Your task to perform on an android device: What's the weather? Image 0: 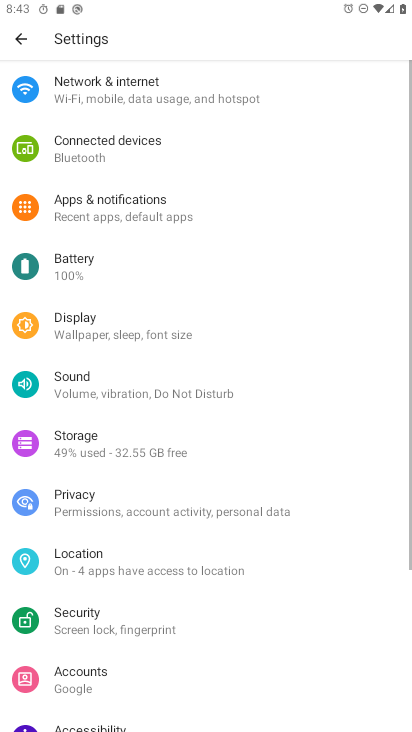
Step 0: press home button
Your task to perform on an android device: What's the weather? Image 1: 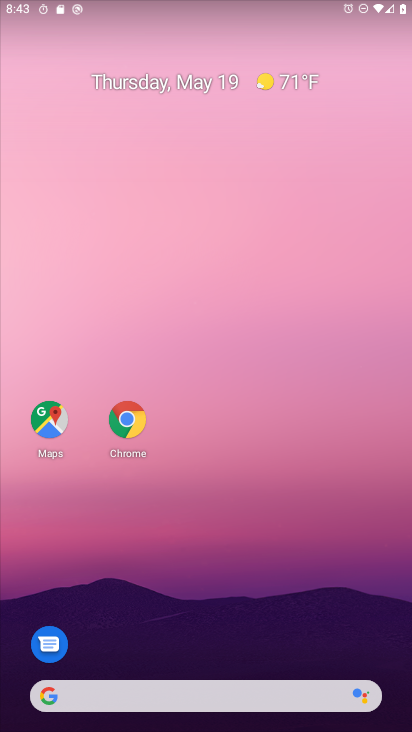
Step 1: drag from (172, 681) to (208, 307)
Your task to perform on an android device: What's the weather? Image 2: 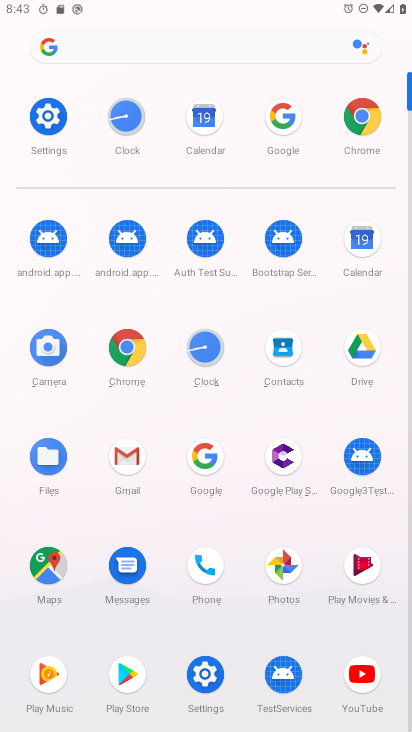
Step 2: click (202, 455)
Your task to perform on an android device: What's the weather? Image 3: 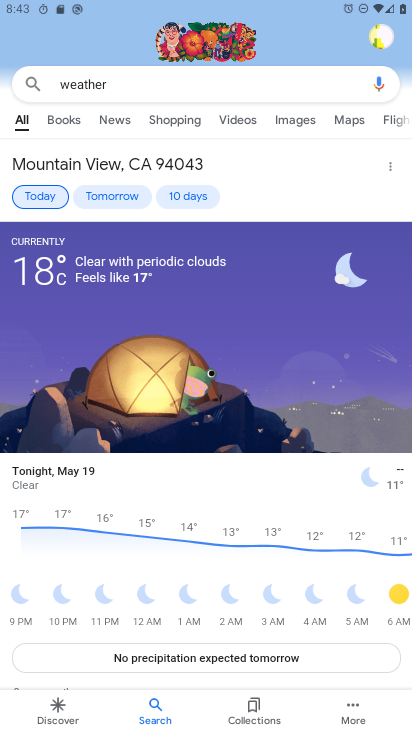
Step 3: drag from (161, 588) to (173, 288)
Your task to perform on an android device: What's the weather? Image 4: 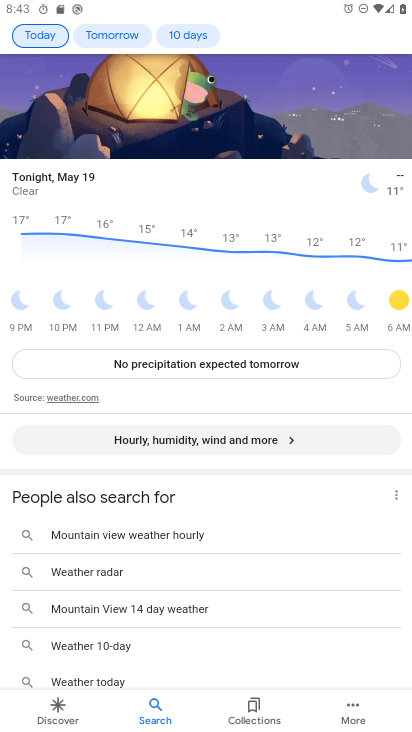
Step 4: click (171, 365)
Your task to perform on an android device: What's the weather? Image 5: 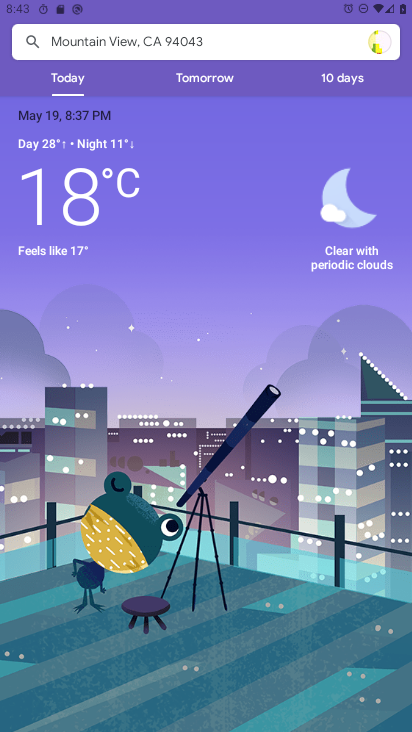
Step 5: task complete